Your task to perform on an android device: see sites visited before in the chrome app Image 0: 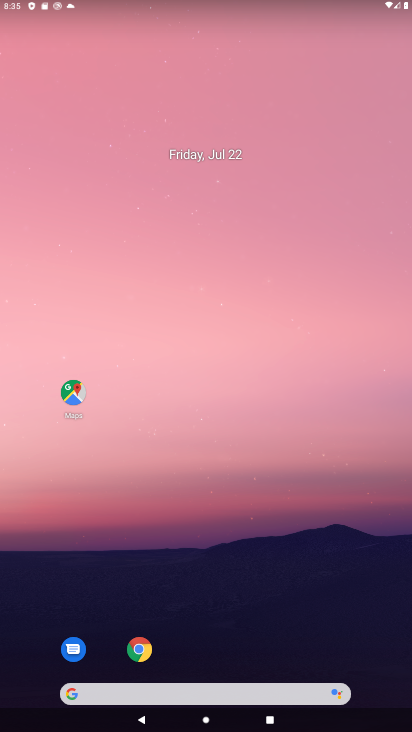
Step 0: drag from (315, 618) to (331, 340)
Your task to perform on an android device: see sites visited before in the chrome app Image 1: 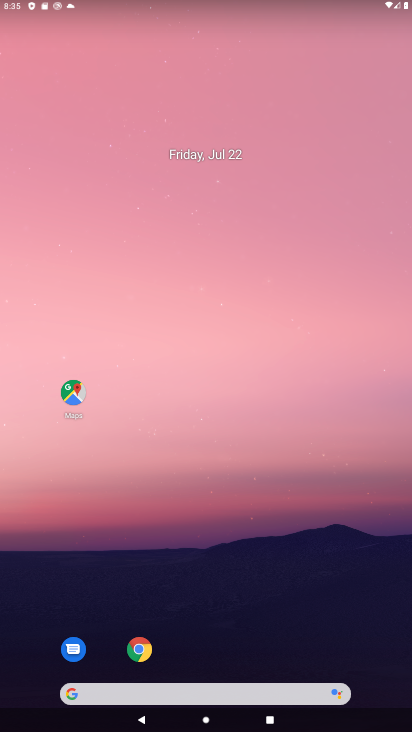
Step 1: drag from (235, 552) to (202, 102)
Your task to perform on an android device: see sites visited before in the chrome app Image 2: 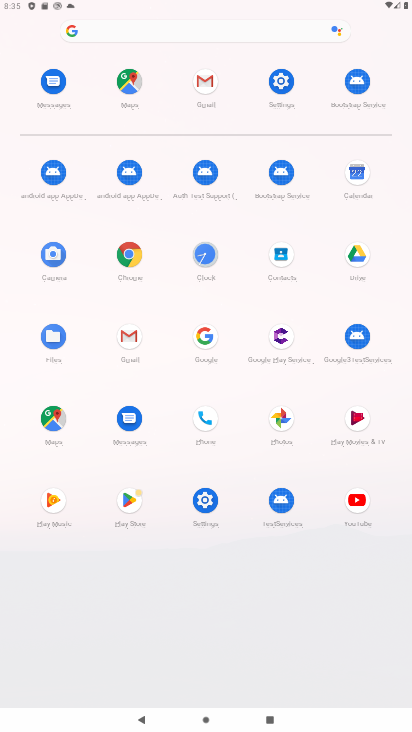
Step 2: click (126, 259)
Your task to perform on an android device: see sites visited before in the chrome app Image 3: 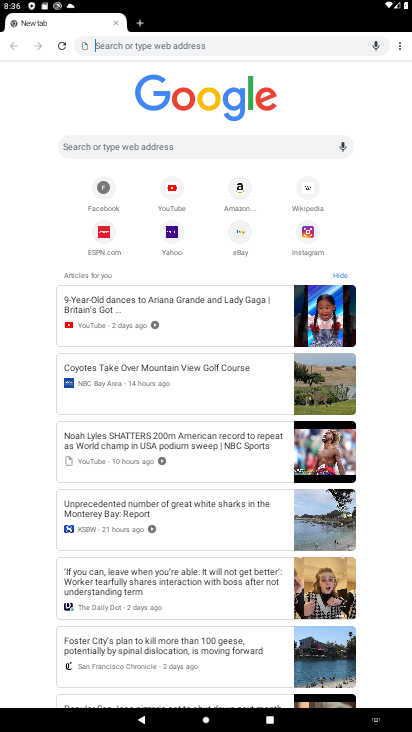
Step 3: click (403, 46)
Your task to perform on an android device: see sites visited before in the chrome app Image 4: 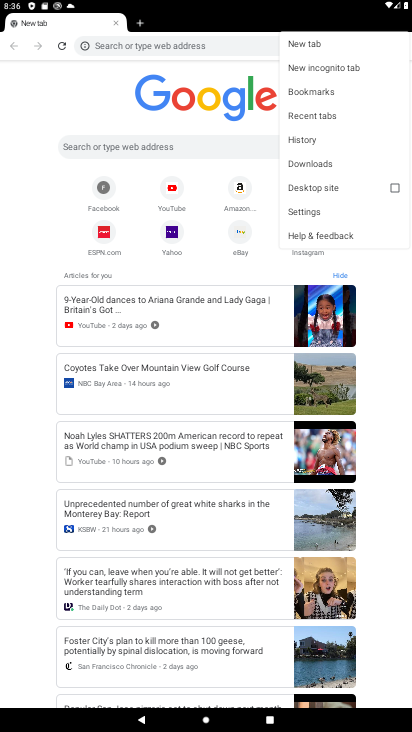
Step 4: click (314, 144)
Your task to perform on an android device: see sites visited before in the chrome app Image 5: 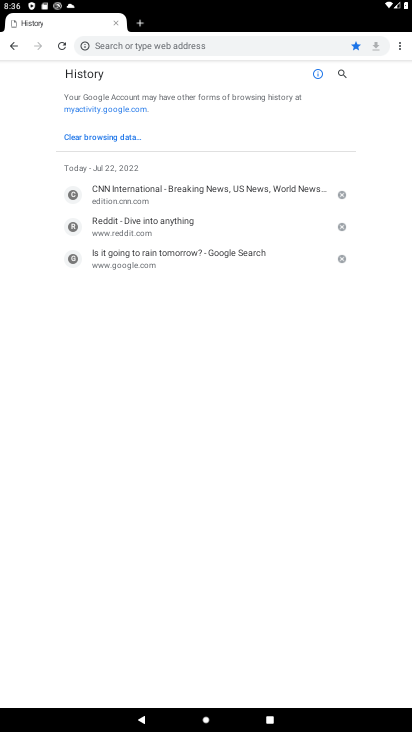
Step 5: task complete